Your task to perform on an android device: Open maps Image 0: 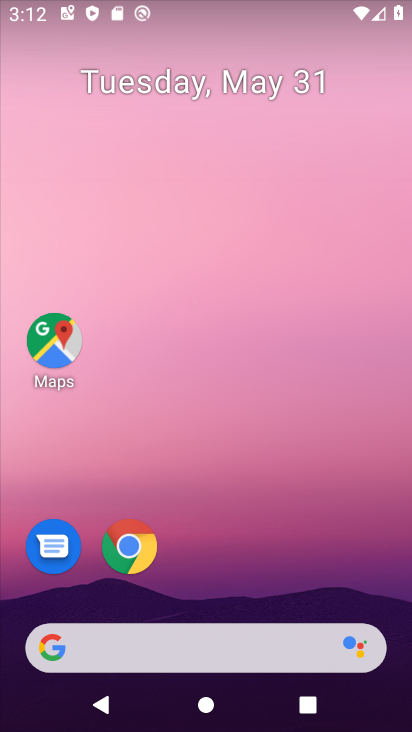
Step 0: click (50, 330)
Your task to perform on an android device: Open maps Image 1: 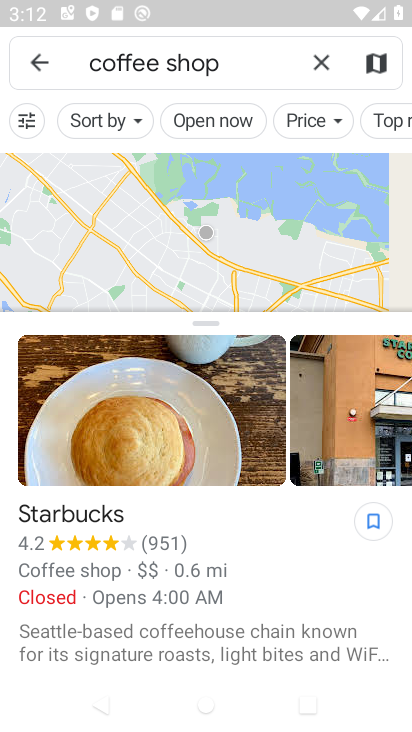
Step 1: click (320, 47)
Your task to perform on an android device: Open maps Image 2: 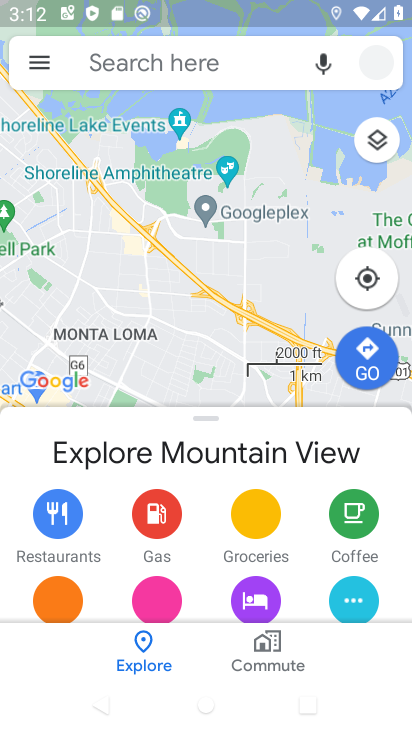
Step 2: task complete